Your task to perform on an android device: Go to Wikipedia Image 0: 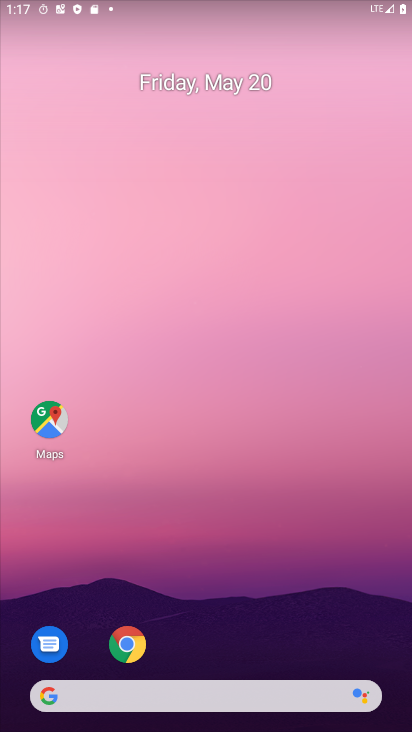
Step 0: drag from (321, 429) to (291, 1)
Your task to perform on an android device: Go to Wikipedia Image 1: 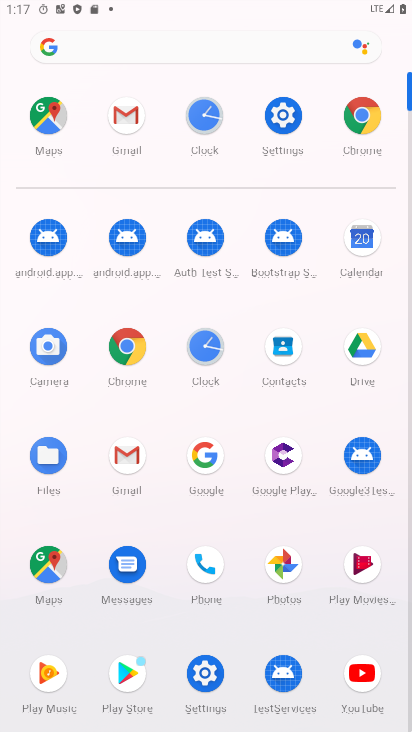
Step 1: click (346, 121)
Your task to perform on an android device: Go to Wikipedia Image 2: 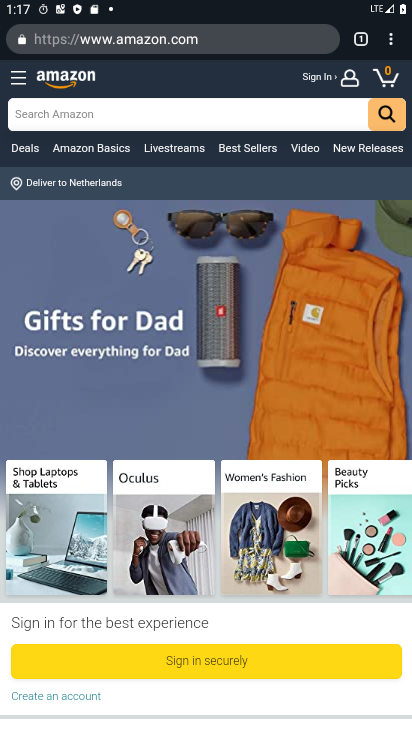
Step 2: click (147, 33)
Your task to perform on an android device: Go to Wikipedia Image 3: 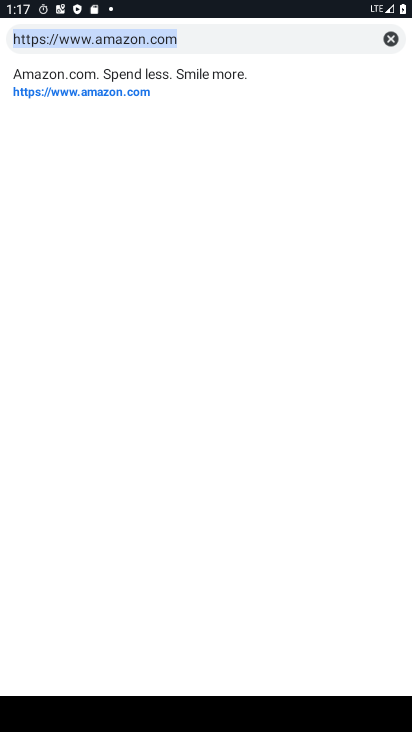
Step 3: click (391, 44)
Your task to perform on an android device: Go to Wikipedia Image 4: 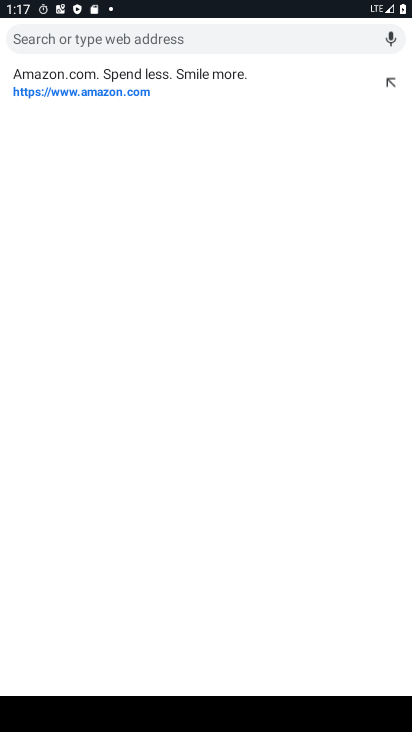
Step 4: type "wikipedia"
Your task to perform on an android device: Go to Wikipedia Image 5: 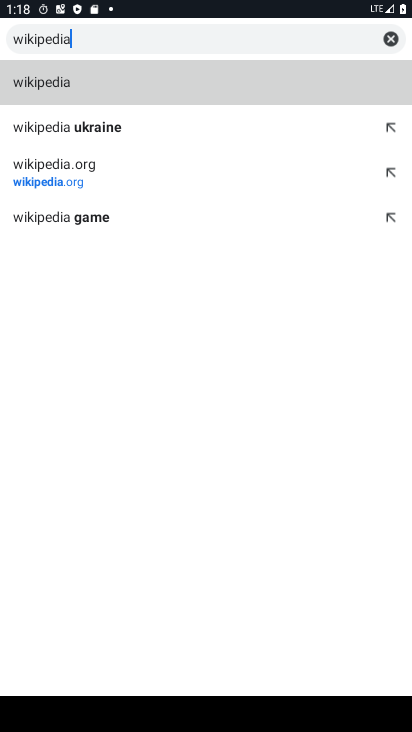
Step 5: click (20, 87)
Your task to perform on an android device: Go to Wikipedia Image 6: 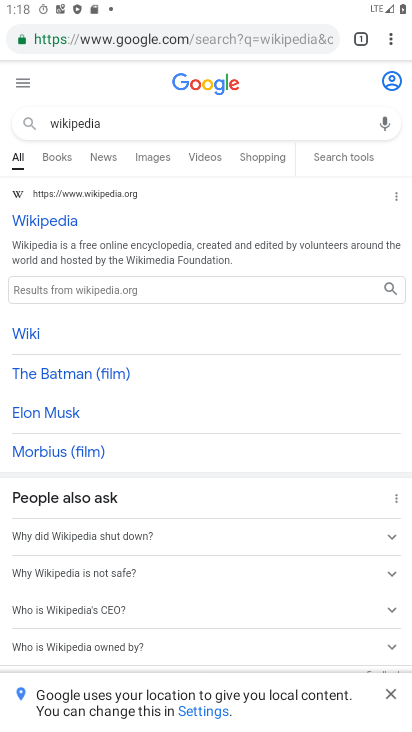
Step 6: click (28, 230)
Your task to perform on an android device: Go to Wikipedia Image 7: 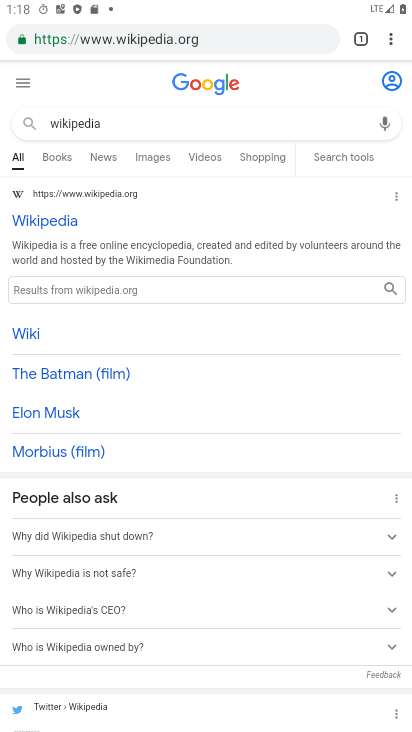
Step 7: task complete